Your task to perform on an android device: Open the calendar and show me this week's events Image 0: 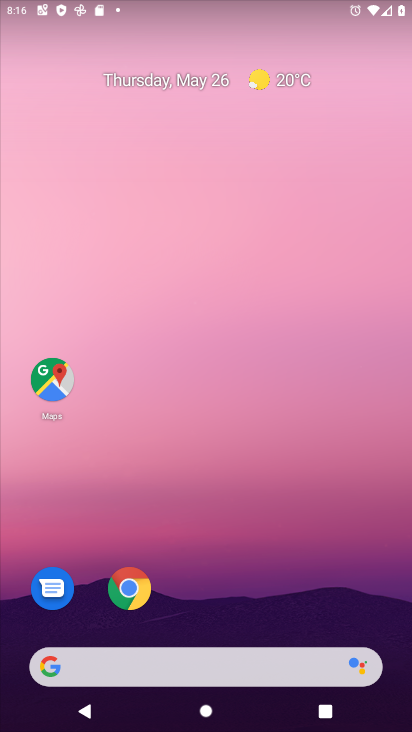
Step 0: drag from (386, 660) to (308, 72)
Your task to perform on an android device: Open the calendar and show me this week's events Image 1: 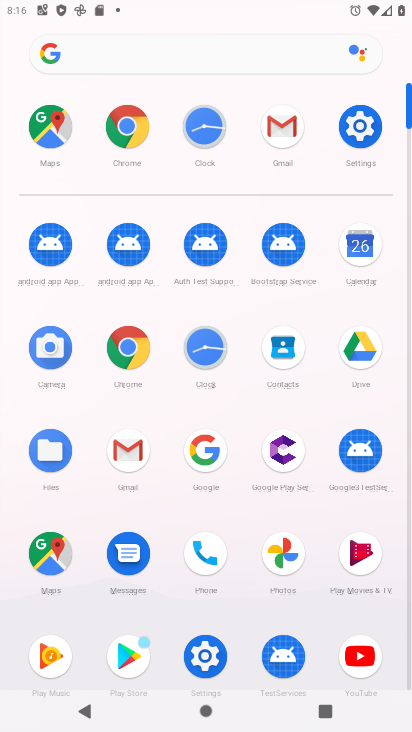
Step 1: click (351, 256)
Your task to perform on an android device: Open the calendar and show me this week's events Image 2: 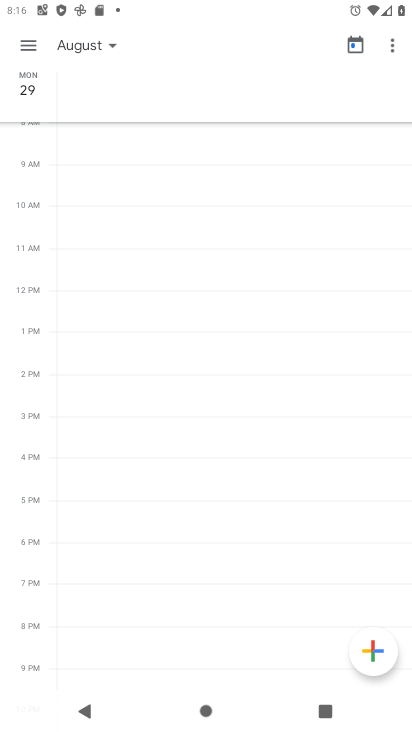
Step 2: task complete